Your task to perform on an android device: turn off airplane mode Image 0: 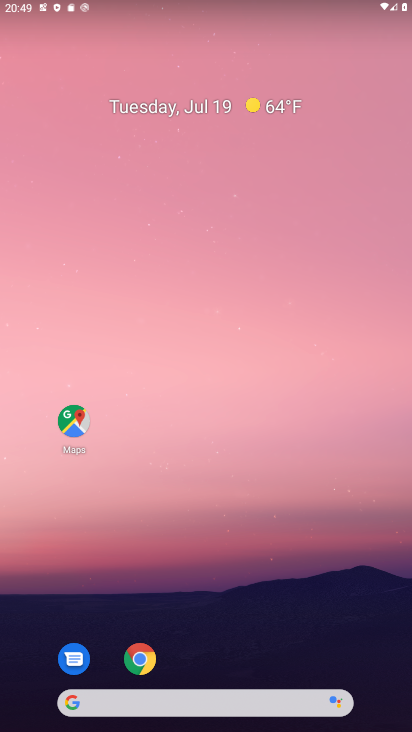
Step 0: drag from (332, 5) to (340, 523)
Your task to perform on an android device: turn off airplane mode Image 1: 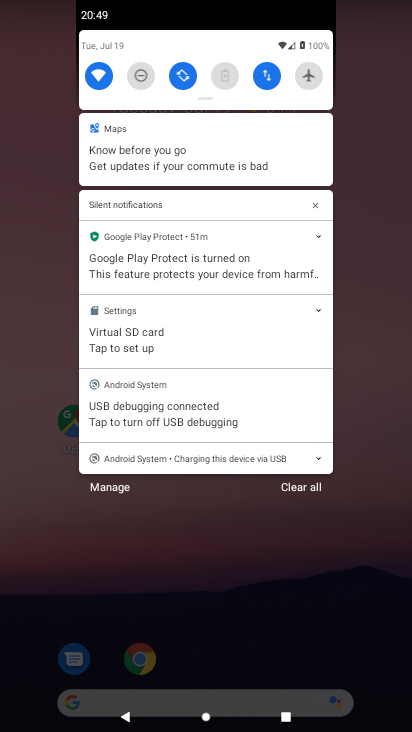
Step 1: task complete